Your task to perform on an android device: Open calendar and show me the second week of next month Image 0: 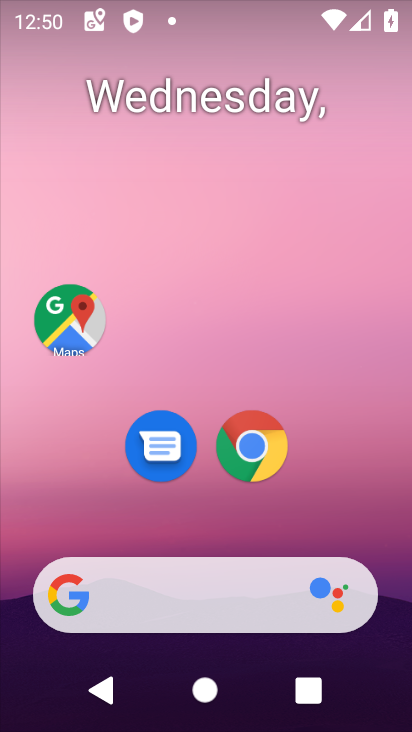
Step 0: drag from (222, 526) to (250, 43)
Your task to perform on an android device: Open calendar and show me the second week of next month Image 1: 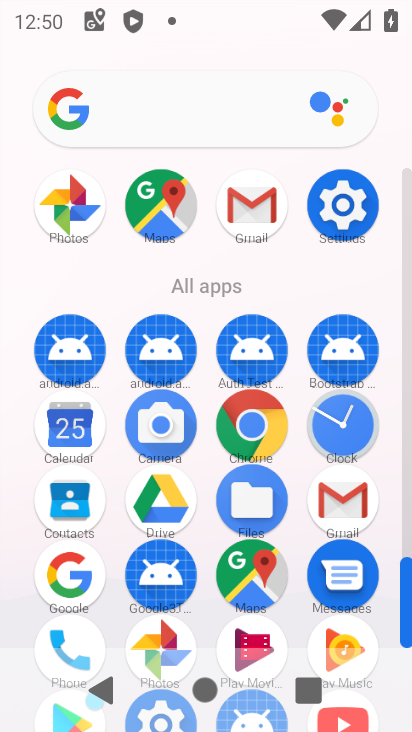
Step 1: click (24, 431)
Your task to perform on an android device: Open calendar and show me the second week of next month Image 2: 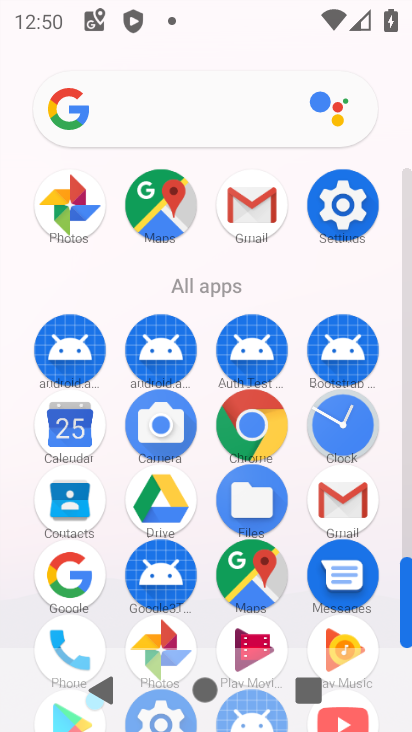
Step 2: click (50, 431)
Your task to perform on an android device: Open calendar and show me the second week of next month Image 3: 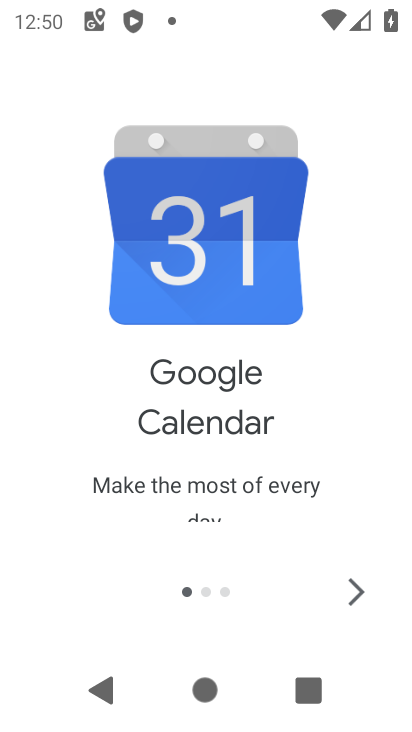
Step 3: click (346, 579)
Your task to perform on an android device: Open calendar and show me the second week of next month Image 4: 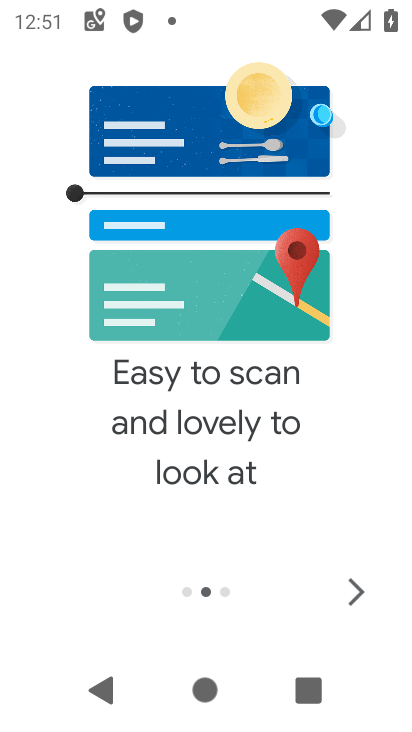
Step 4: click (365, 587)
Your task to perform on an android device: Open calendar and show me the second week of next month Image 5: 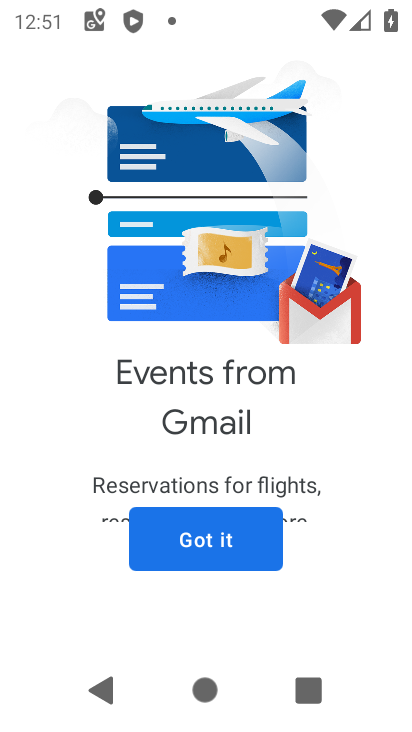
Step 5: click (250, 557)
Your task to perform on an android device: Open calendar and show me the second week of next month Image 6: 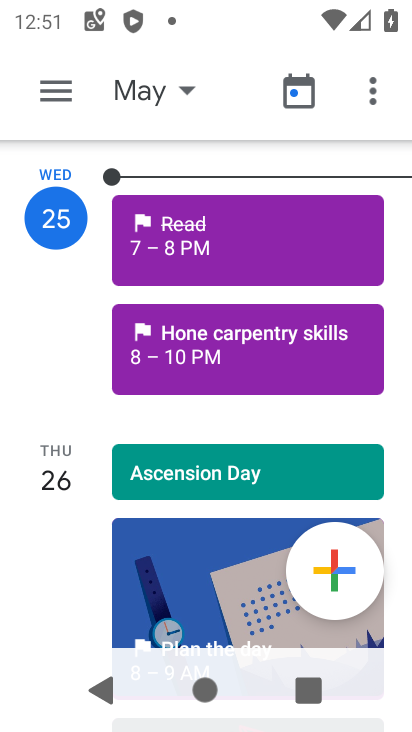
Step 6: click (153, 92)
Your task to perform on an android device: Open calendar and show me the second week of next month Image 7: 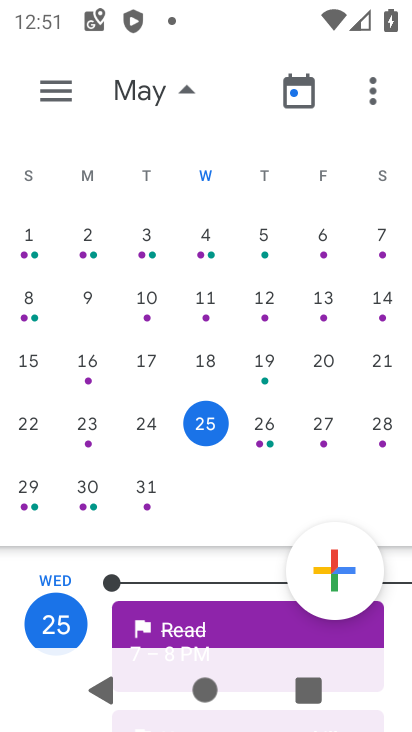
Step 7: drag from (390, 328) to (2, 381)
Your task to perform on an android device: Open calendar and show me the second week of next month Image 8: 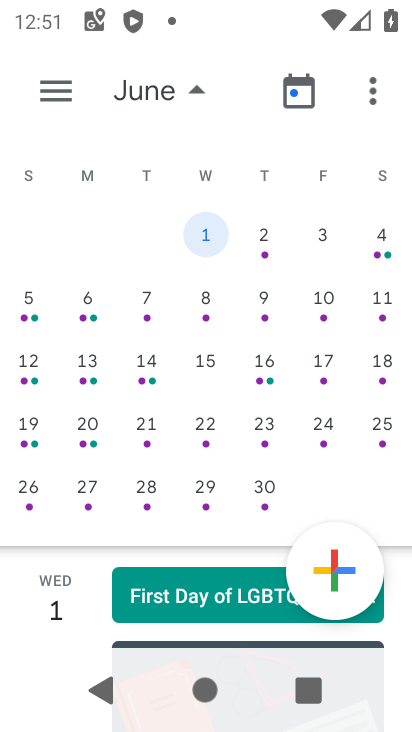
Step 8: click (39, 315)
Your task to perform on an android device: Open calendar and show me the second week of next month Image 9: 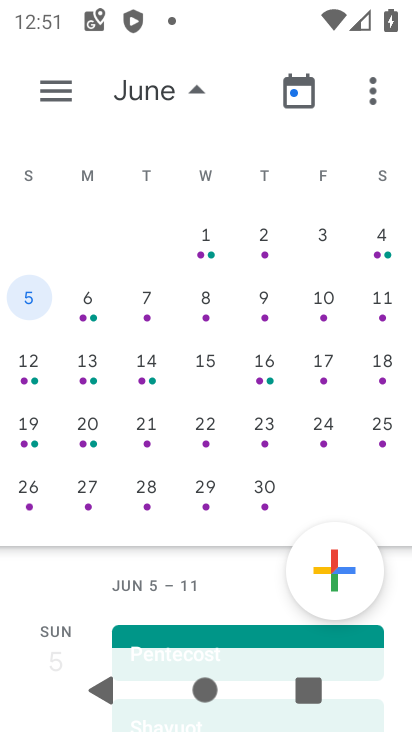
Step 9: task complete